Your task to perform on an android device: Open the calendar app, open the side menu, and click the "Day" option Image 0: 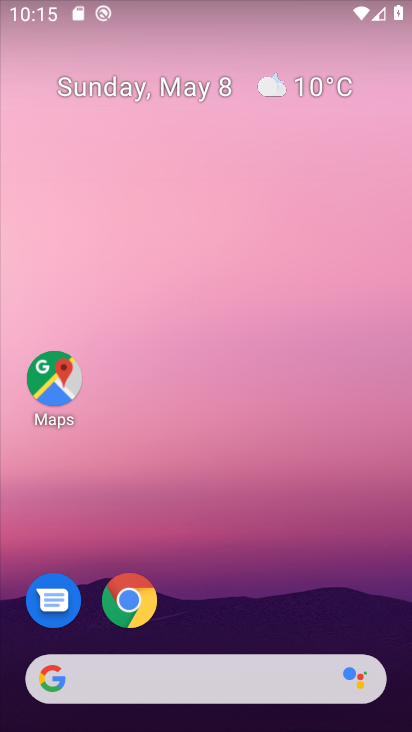
Step 0: click (344, 63)
Your task to perform on an android device: Open the calendar app, open the side menu, and click the "Day" option Image 1: 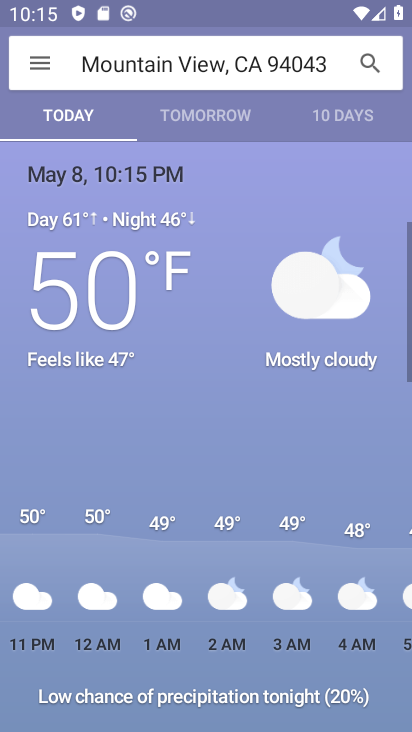
Step 1: press home button
Your task to perform on an android device: Open the calendar app, open the side menu, and click the "Day" option Image 2: 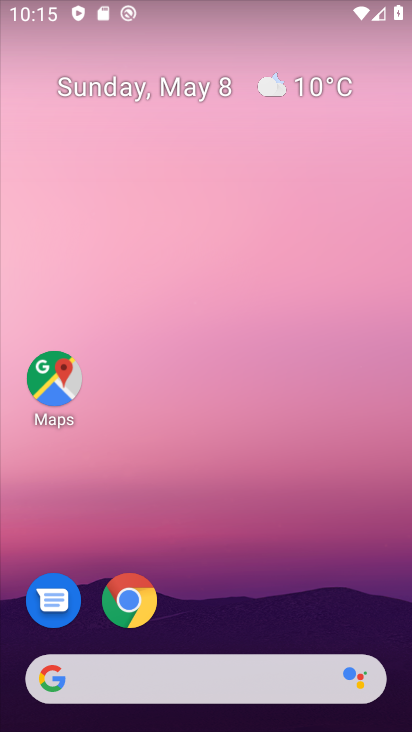
Step 2: drag from (391, 567) to (379, 298)
Your task to perform on an android device: Open the calendar app, open the side menu, and click the "Day" option Image 3: 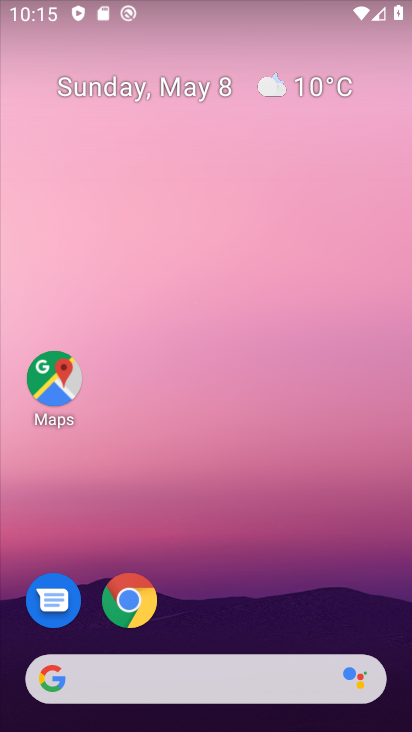
Step 3: drag from (392, 650) to (371, 141)
Your task to perform on an android device: Open the calendar app, open the side menu, and click the "Day" option Image 4: 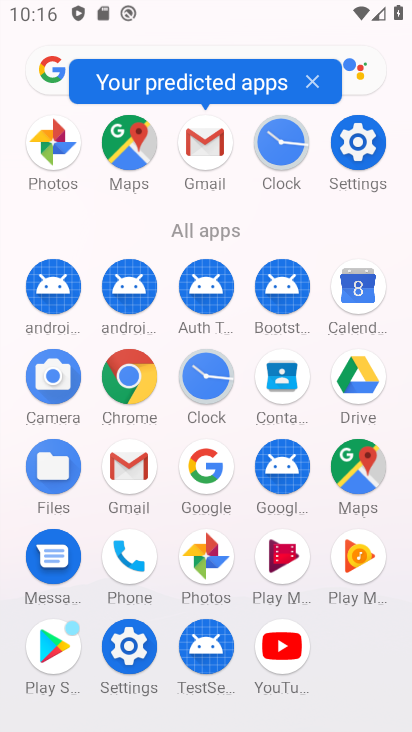
Step 4: click (366, 280)
Your task to perform on an android device: Open the calendar app, open the side menu, and click the "Day" option Image 5: 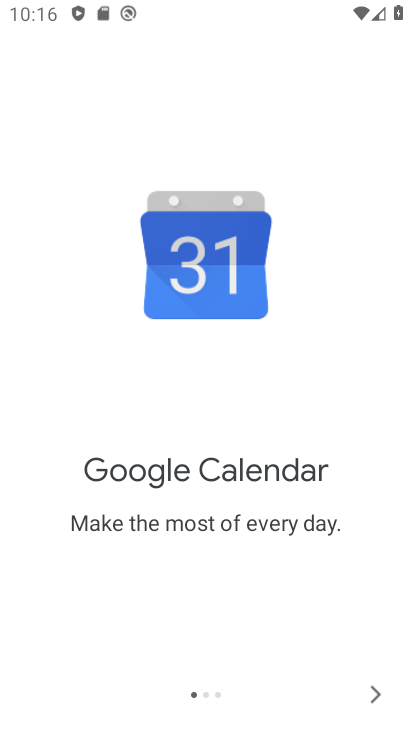
Step 5: click (364, 693)
Your task to perform on an android device: Open the calendar app, open the side menu, and click the "Day" option Image 6: 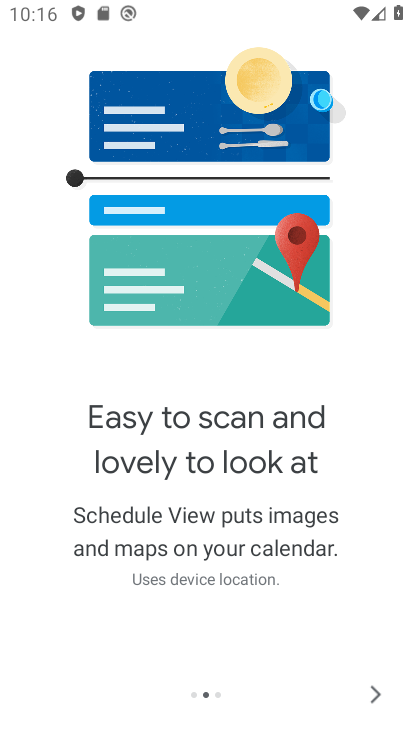
Step 6: click (364, 693)
Your task to perform on an android device: Open the calendar app, open the side menu, and click the "Day" option Image 7: 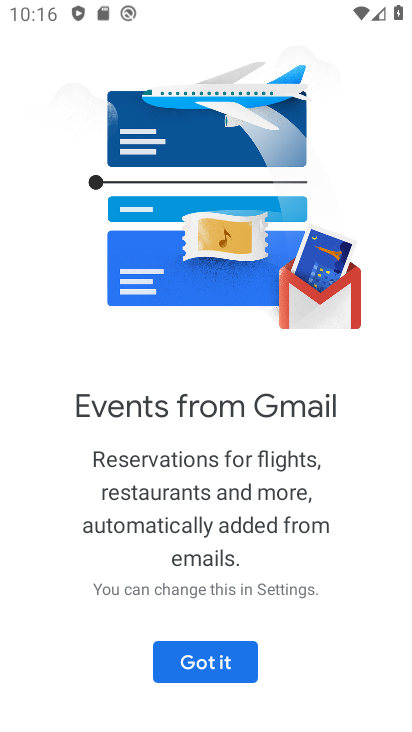
Step 7: click (210, 675)
Your task to perform on an android device: Open the calendar app, open the side menu, and click the "Day" option Image 8: 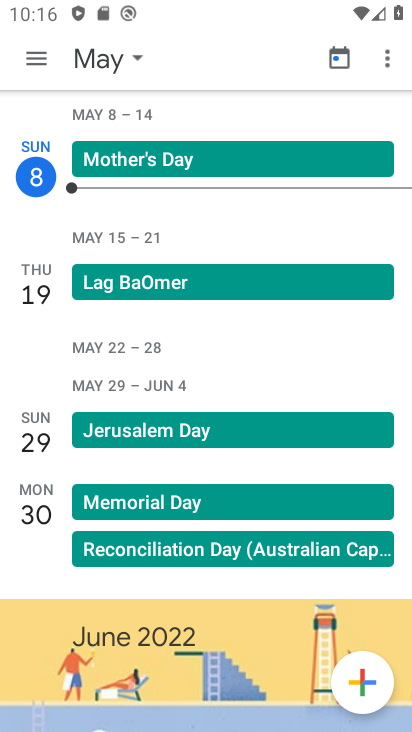
Step 8: click (37, 56)
Your task to perform on an android device: Open the calendar app, open the side menu, and click the "Day" option Image 9: 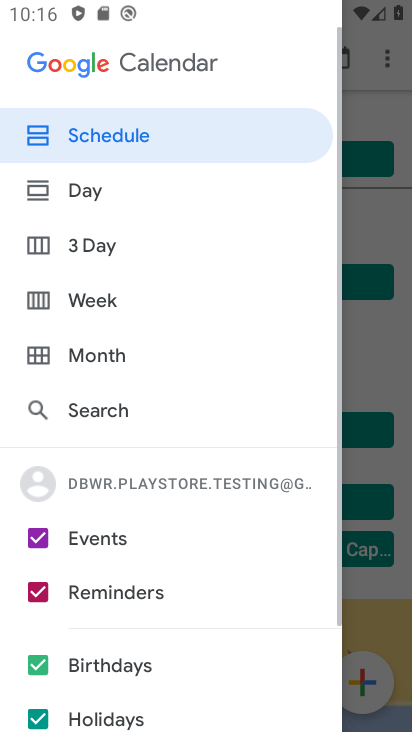
Step 9: click (82, 190)
Your task to perform on an android device: Open the calendar app, open the side menu, and click the "Day" option Image 10: 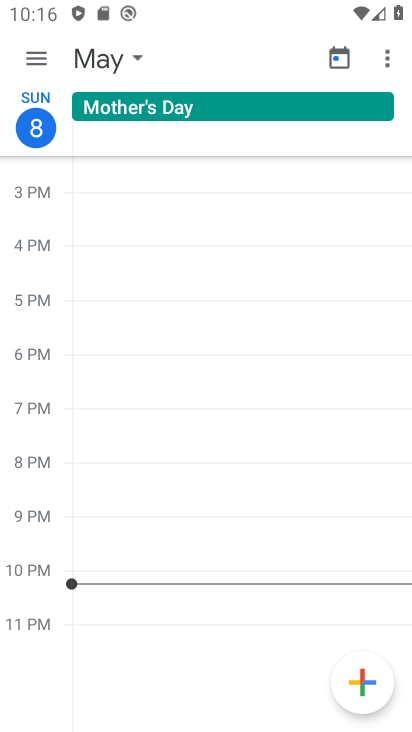
Step 10: task complete